Your task to perform on an android device: Open the map Image 0: 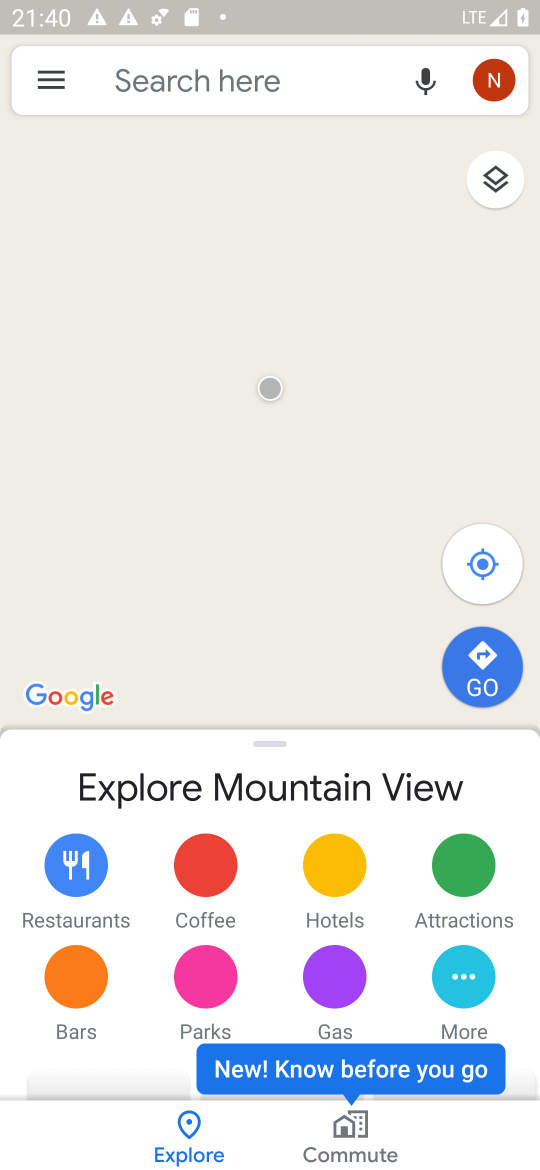
Step 0: task complete